Your task to perform on an android device: Open Reddit.com Image 0: 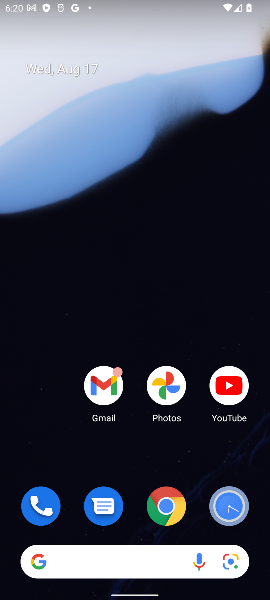
Step 0: drag from (139, 452) to (144, 21)
Your task to perform on an android device: Open Reddit.com Image 1: 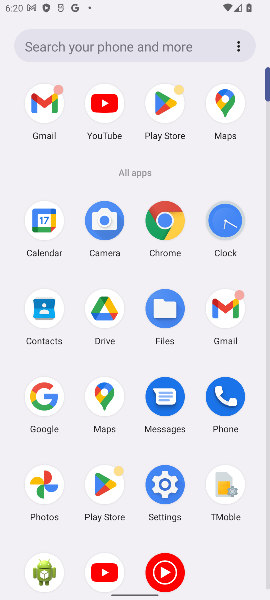
Step 1: click (170, 219)
Your task to perform on an android device: Open Reddit.com Image 2: 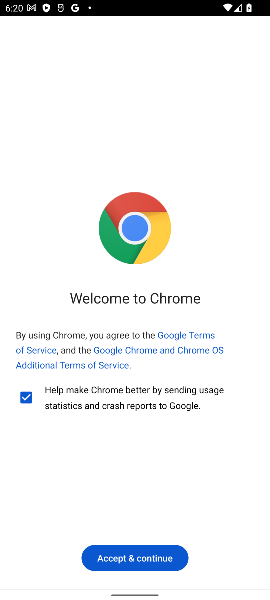
Step 2: click (157, 560)
Your task to perform on an android device: Open Reddit.com Image 3: 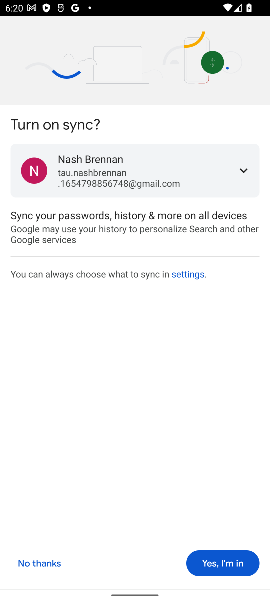
Step 3: click (243, 569)
Your task to perform on an android device: Open Reddit.com Image 4: 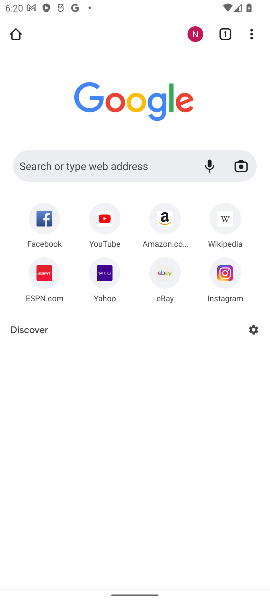
Step 4: click (143, 160)
Your task to perform on an android device: Open Reddit.com Image 5: 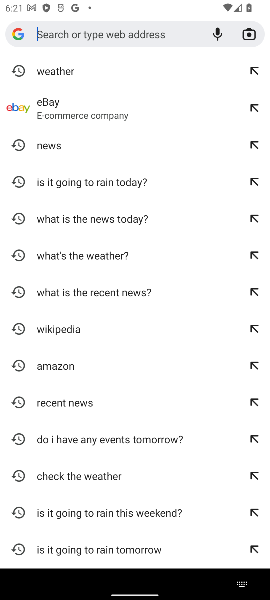
Step 5: type "reddit.com"
Your task to perform on an android device: Open Reddit.com Image 6: 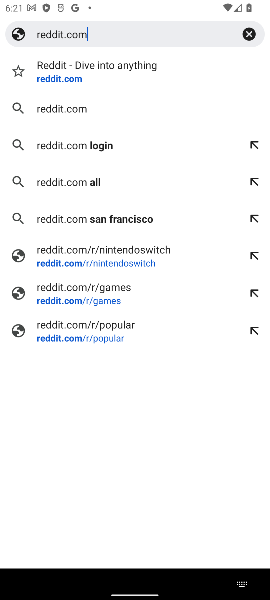
Step 6: click (63, 77)
Your task to perform on an android device: Open Reddit.com Image 7: 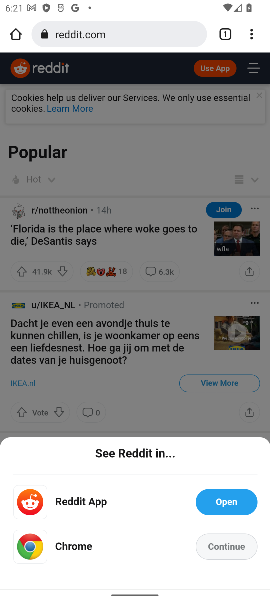
Step 7: task complete